Your task to perform on an android device: clear history in the chrome app Image 0: 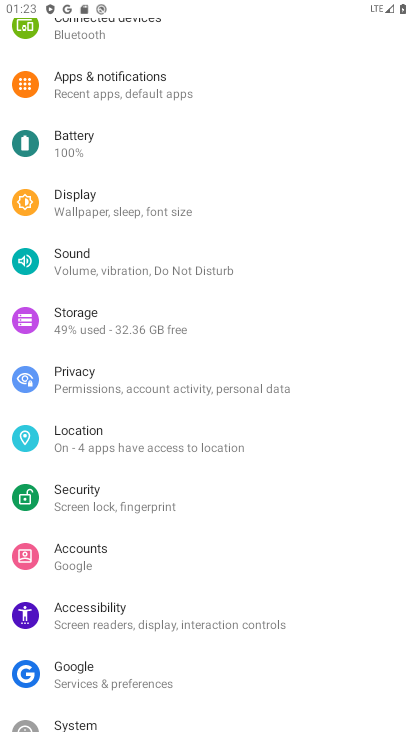
Step 0: press home button
Your task to perform on an android device: clear history in the chrome app Image 1: 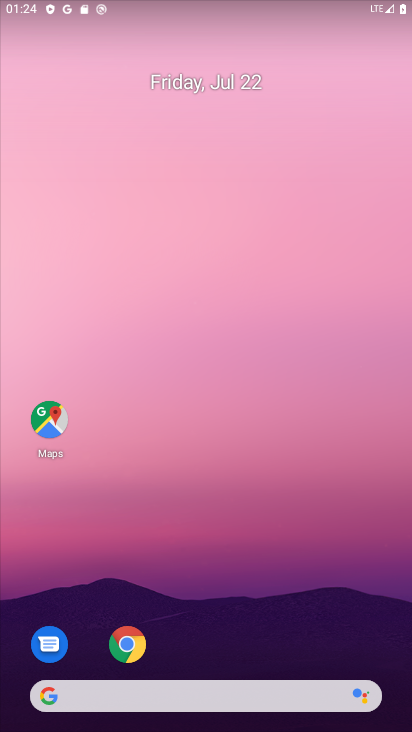
Step 1: click (138, 648)
Your task to perform on an android device: clear history in the chrome app Image 2: 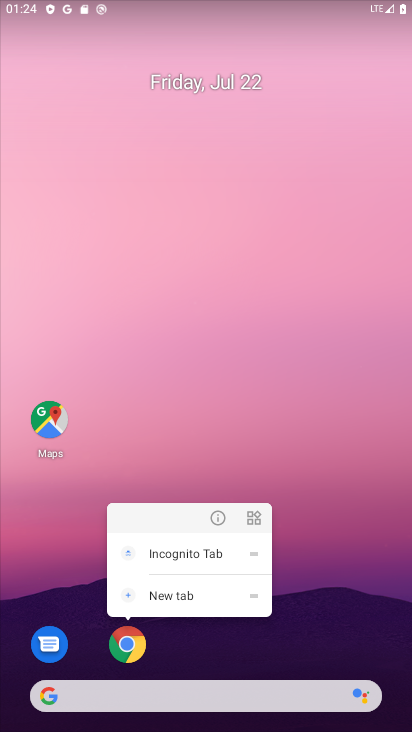
Step 2: click (138, 648)
Your task to perform on an android device: clear history in the chrome app Image 3: 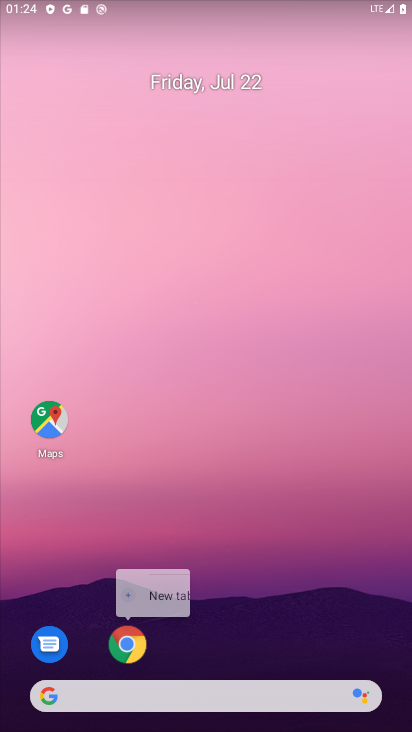
Step 3: click (138, 648)
Your task to perform on an android device: clear history in the chrome app Image 4: 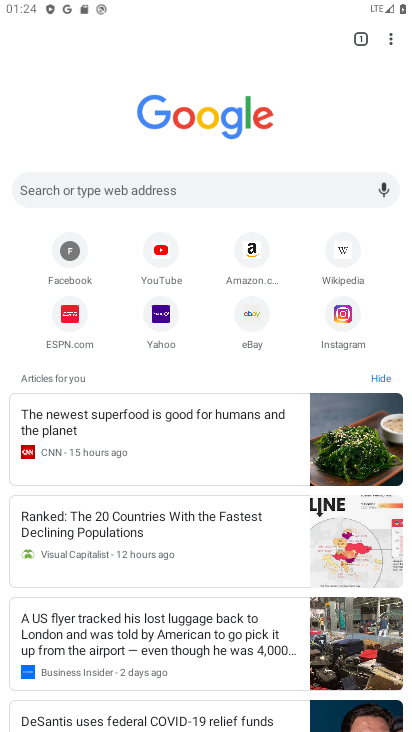
Step 4: click (394, 37)
Your task to perform on an android device: clear history in the chrome app Image 5: 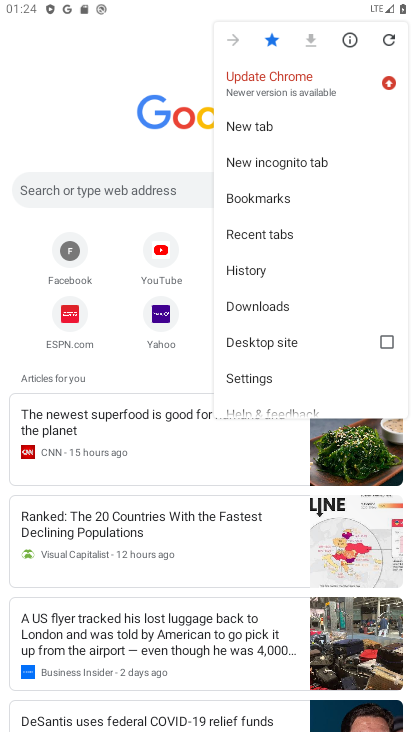
Step 5: click (275, 269)
Your task to perform on an android device: clear history in the chrome app Image 6: 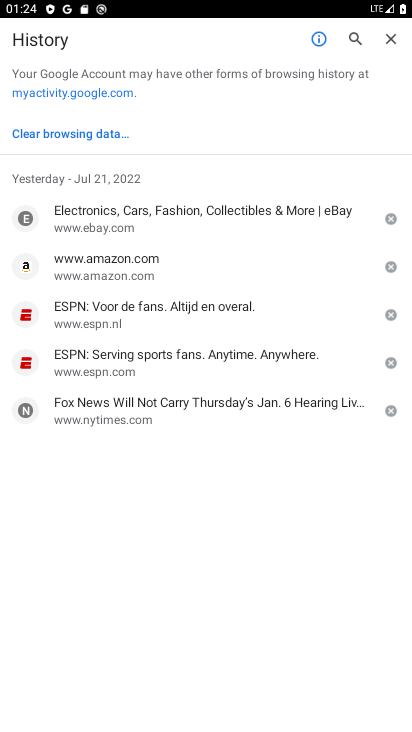
Step 6: click (57, 133)
Your task to perform on an android device: clear history in the chrome app Image 7: 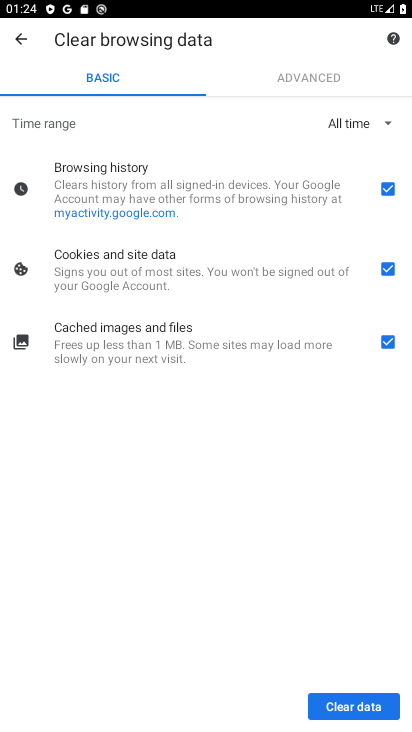
Step 7: click (390, 695)
Your task to perform on an android device: clear history in the chrome app Image 8: 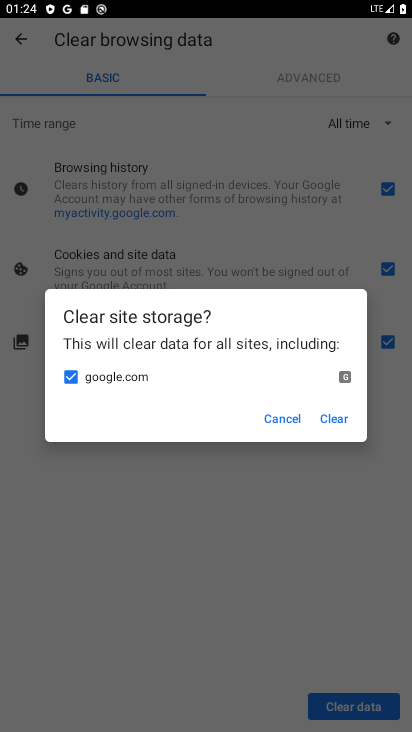
Step 8: click (331, 414)
Your task to perform on an android device: clear history in the chrome app Image 9: 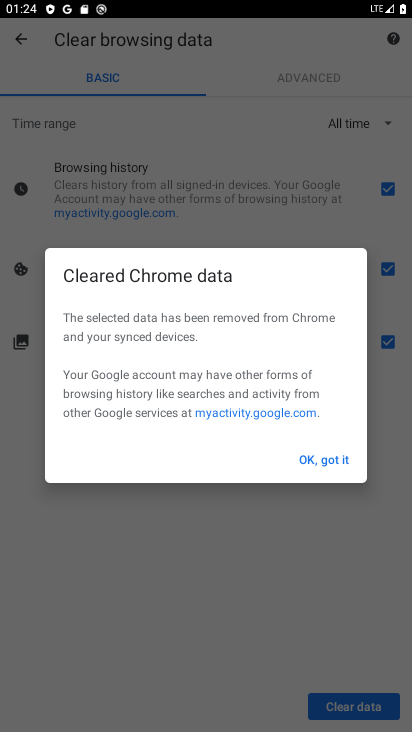
Step 9: click (312, 469)
Your task to perform on an android device: clear history in the chrome app Image 10: 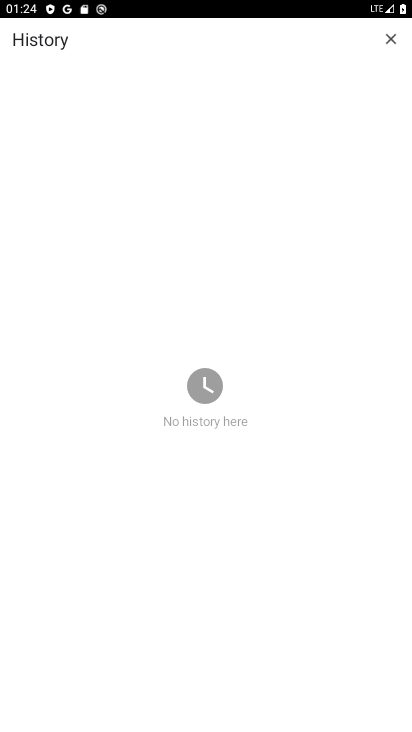
Step 10: task complete